Your task to perform on an android device: Show me popular games on the Play Store Image 0: 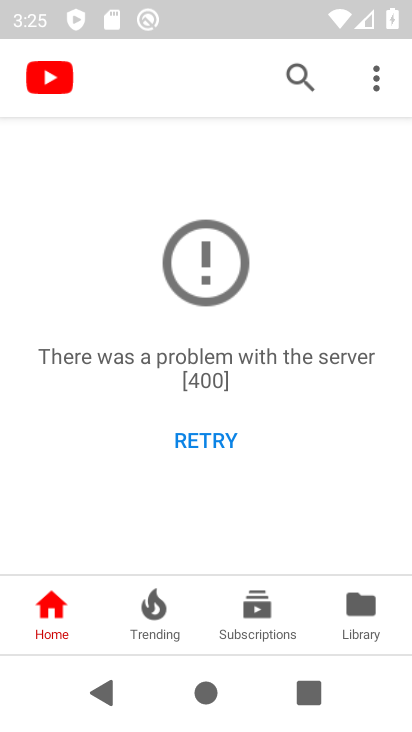
Step 0: press home button
Your task to perform on an android device: Show me popular games on the Play Store Image 1: 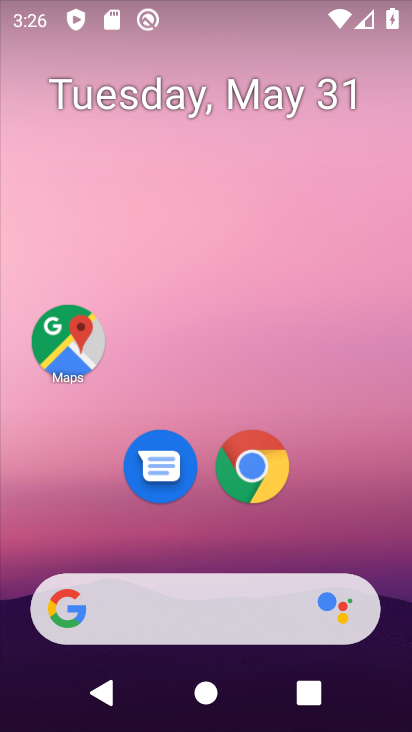
Step 1: drag from (87, 598) to (172, 151)
Your task to perform on an android device: Show me popular games on the Play Store Image 2: 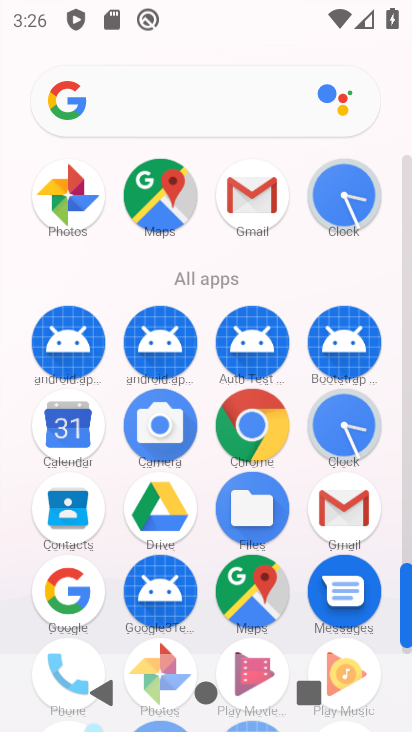
Step 2: drag from (167, 630) to (246, 361)
Your task to perform on an android device: Show me popular games on the Play Store Image 3: 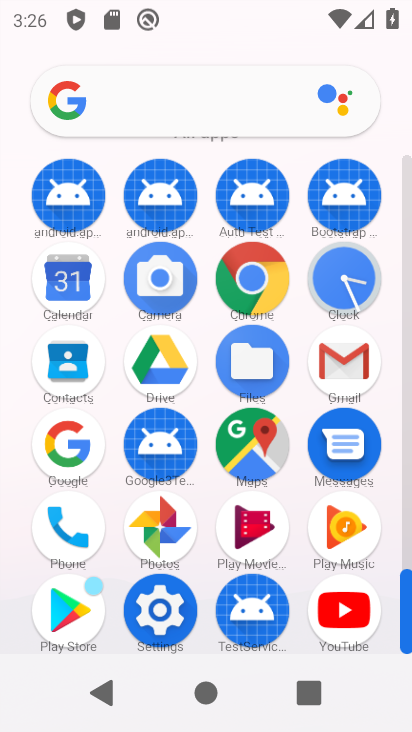
Step 3: click (89, 620)
Your task to perform on an android device: Show me popular games on the Play Store Image 4: 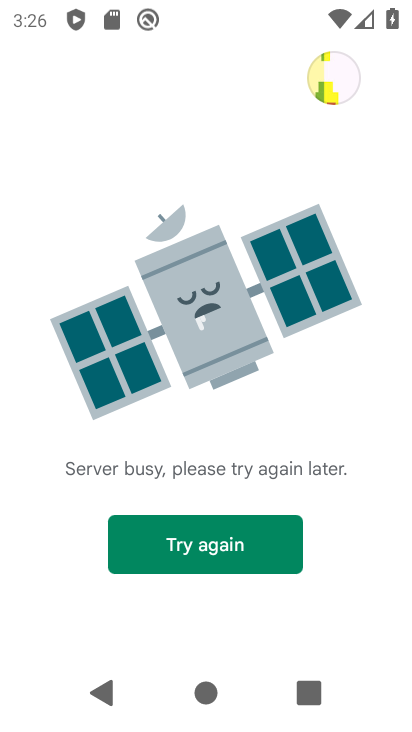
Step 4: task complete